Your task to perform on an android device: open wifi settings Image 0: 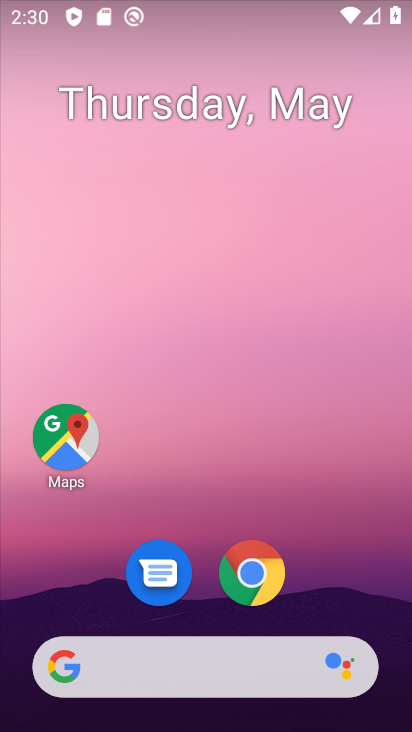
Step 0: drag from (190, 632) to (207, 347)
Your task to perform on an android device: open wifi settings Image 1: 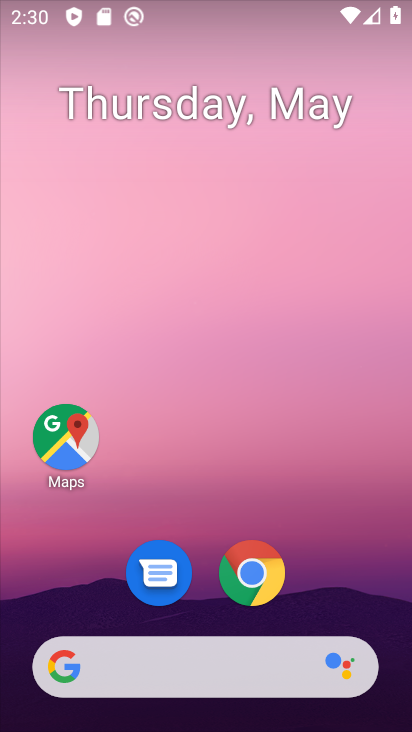
Step 1: drag from (196, 571) to (256, 291)
Your task to perform on an android device: open wifi settings Image 2: 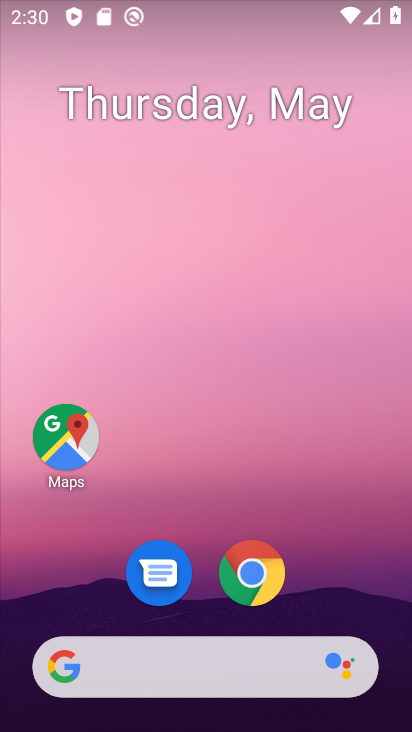
Step 2: drag from (205, 651) to (257, 290)
Your task to perform on an android device: open wifi settings Image 3: 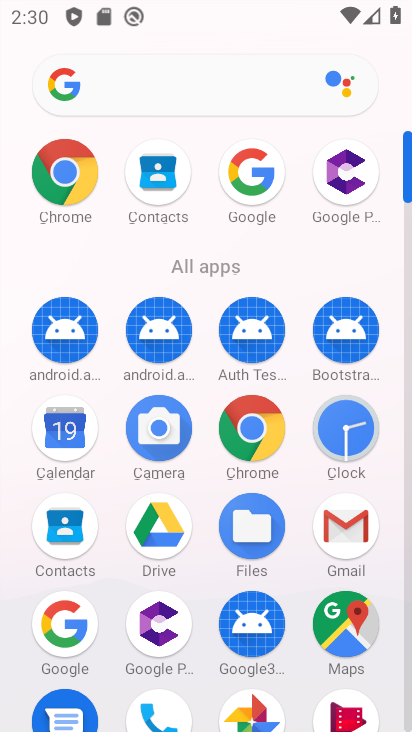
Step 3: drag from (210, 569) to (239, 248)
Your task to perform on an android device: open wifi settings Image 4: 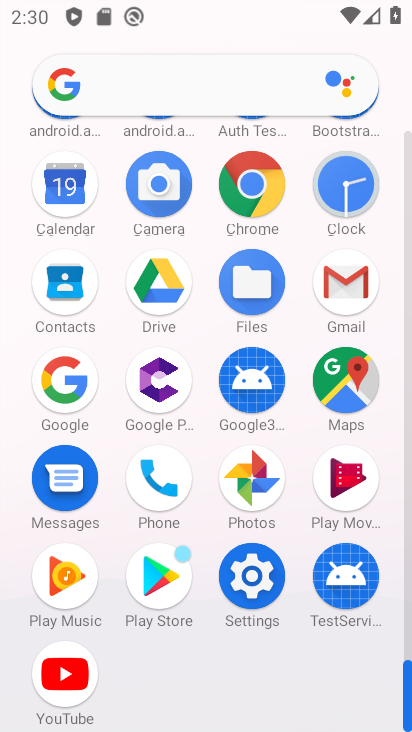
Step 4: click (249, 582)
Your task to perform on an android device: open wifi settings Image 5: 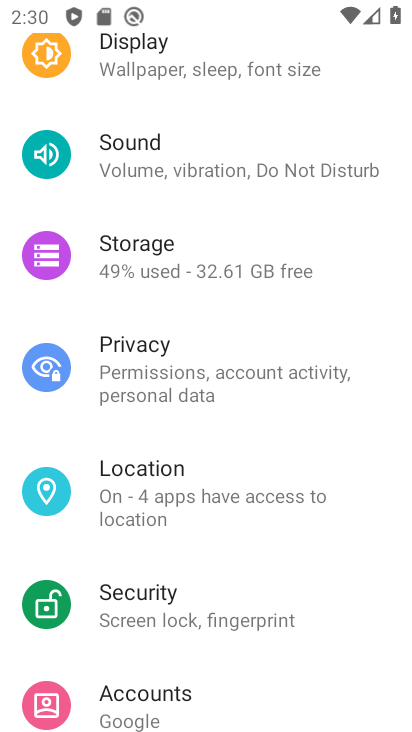
Step 5: drag from (251, 183) to (254, 503)
Your task to perform on an android device: open wifi settings Image 6: 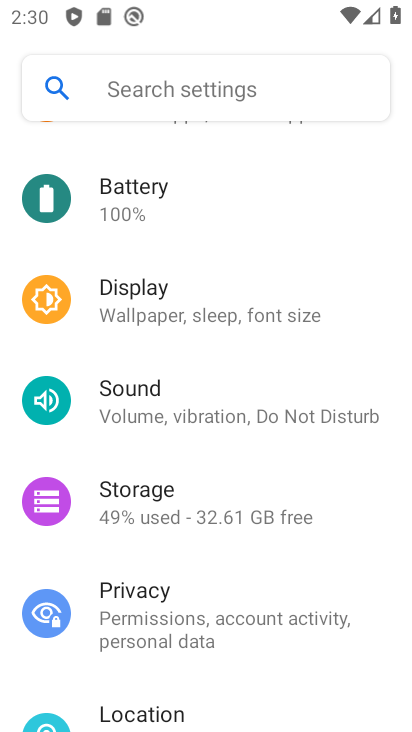
Step 6: drag from (319, 255) to (329, 417)
Your task to perform on an android device: open wifi settings Image 7: 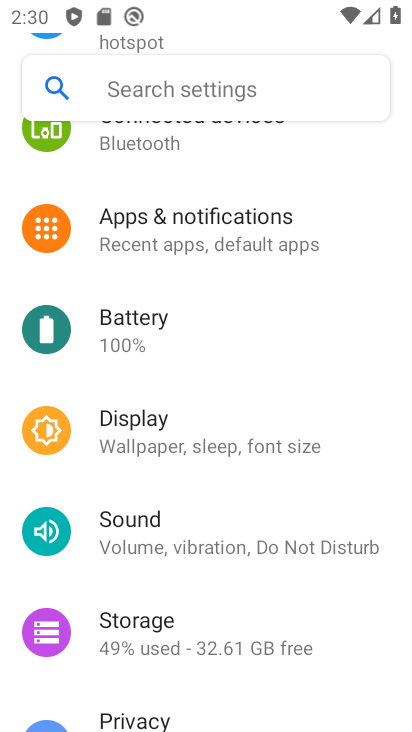
Step 7: drag from (281, 167) to (275, 494)
Your task to perform on an android device: open wifi settings Image 8: 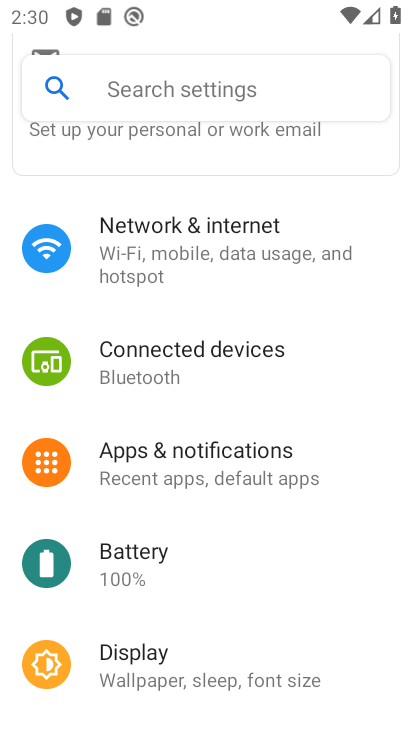
Step 8: click (238, 232)
Your task to perform on an android device: open wifi settings Image 9: 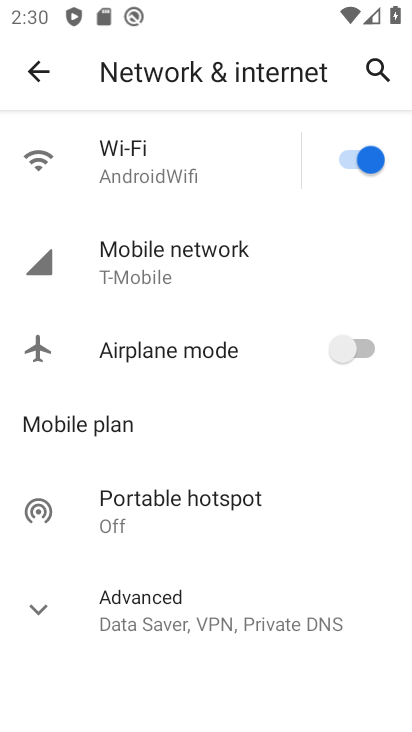
Step 9: click (173, 190)
Your task to perform on an android device: open wifi settings Image 10: 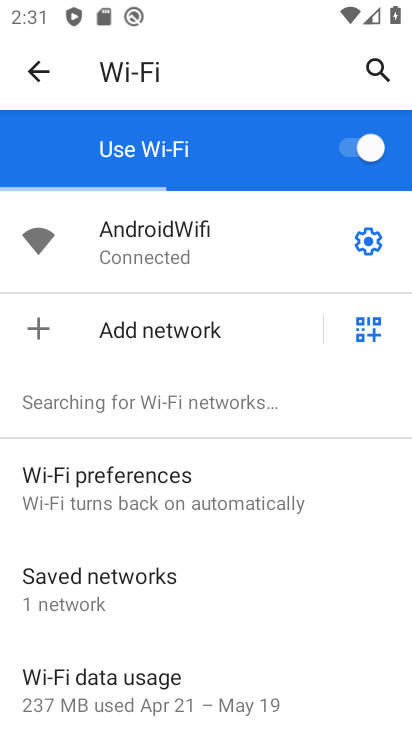
Step 10: click (364, 245)
Your task to perform on an android device: open wifi settings Image 11: 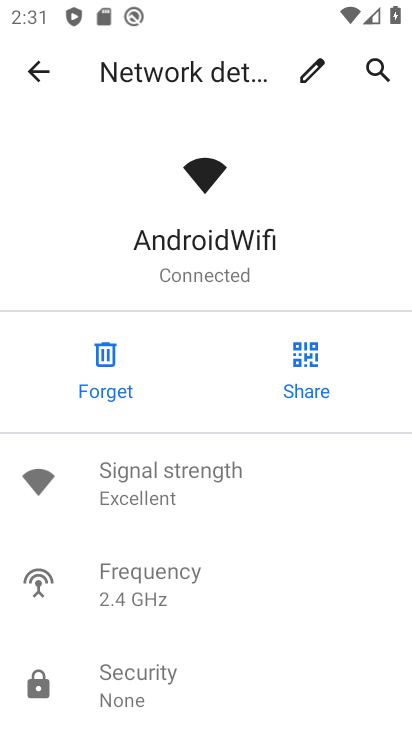
Step 11: drag from (207, 682) to (294, 330)
Your task to perform on an android device: open wifi settings Image 12: 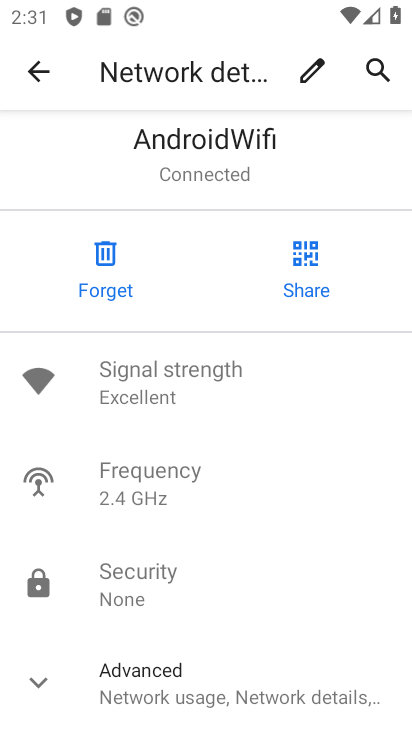
Step 12: click (195, 700)
Your task to perform on an android device: open wifi settings Image 13: 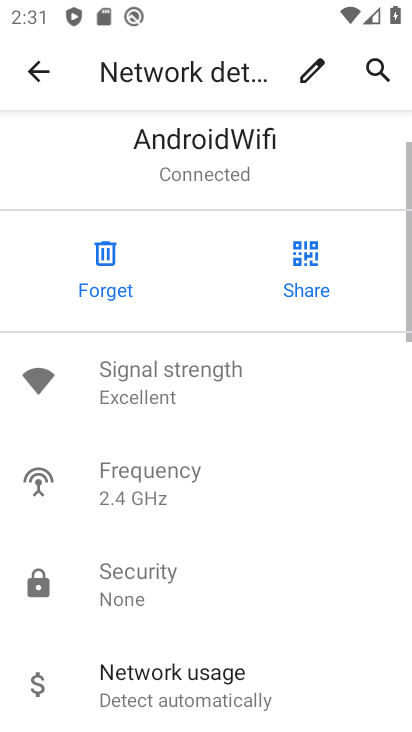
Step 13: task complete